Your task to perform on an android device: Open Google Image 0: 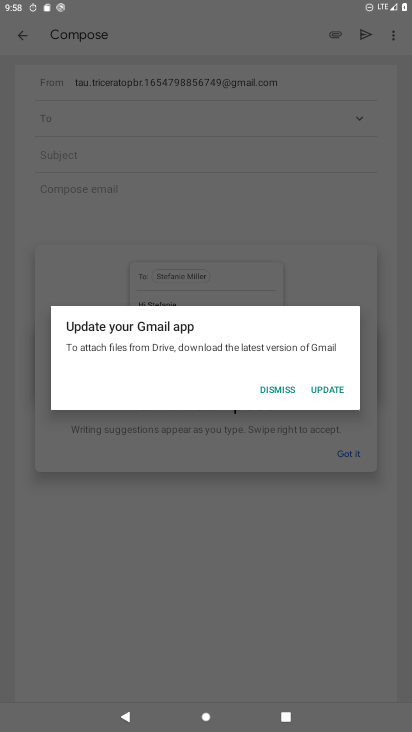
Step 0: press home button
Your task to perform on an android device: Open Google Image 1: 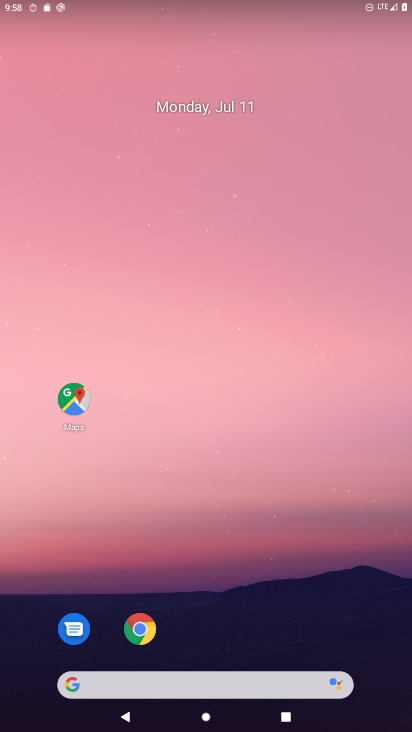
Step 1: click (157, 685)
Your task to perform on an android device: Open Google Image 2: 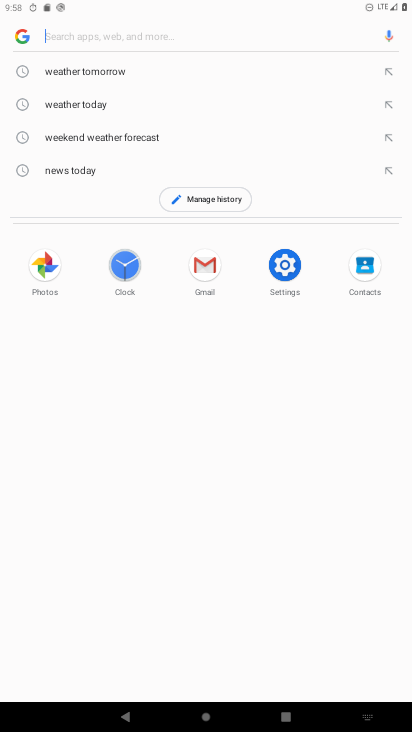
Step 2: task complete